Your task to perform on an android device: read, delete, or share a saved page in the chrome app Image 0: 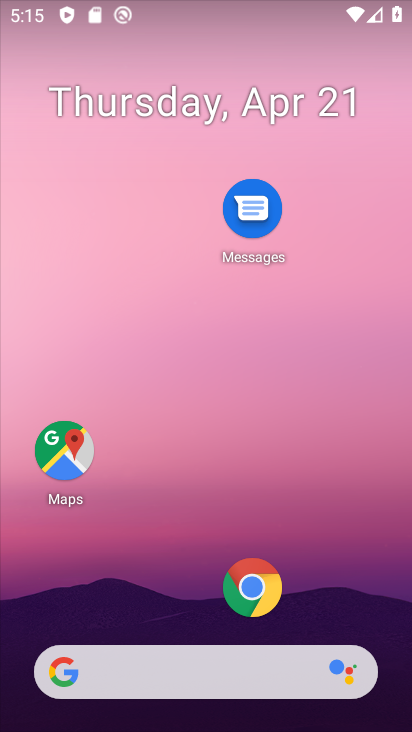
Step 0: click (253, 581)
Your task to perform on an android device: read, delete, or share a saved page in the chrome app Image 1: 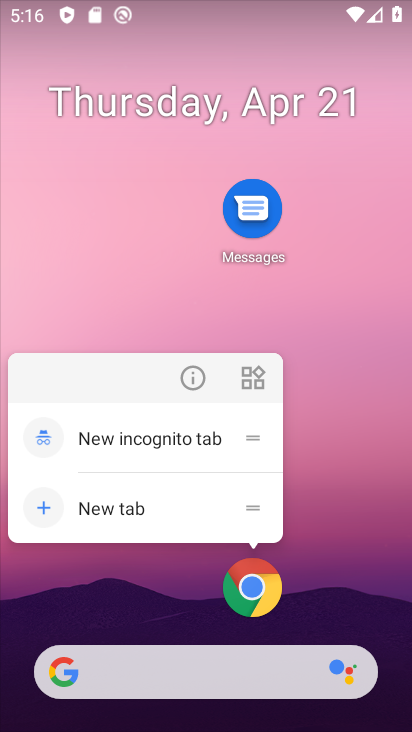
Step 1: click (260, 593)
Your task to perform on an android device: read, delete, or share a saved page in the chrome app Image 2: 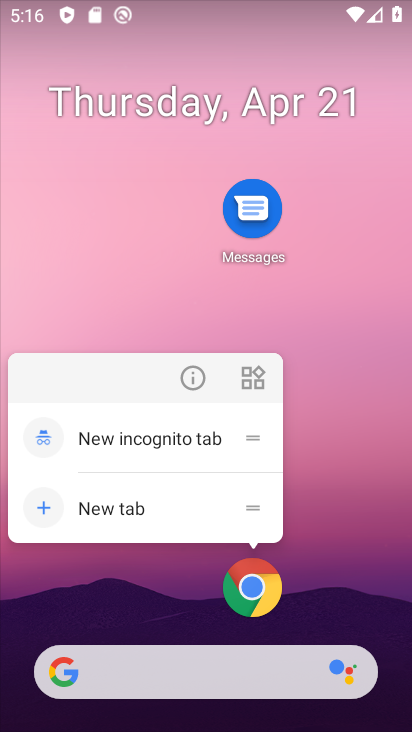
Step 2: click (330, 551)
Your task to perform on an android device: read, delete, or share a saved page in the chrome app Image 3: 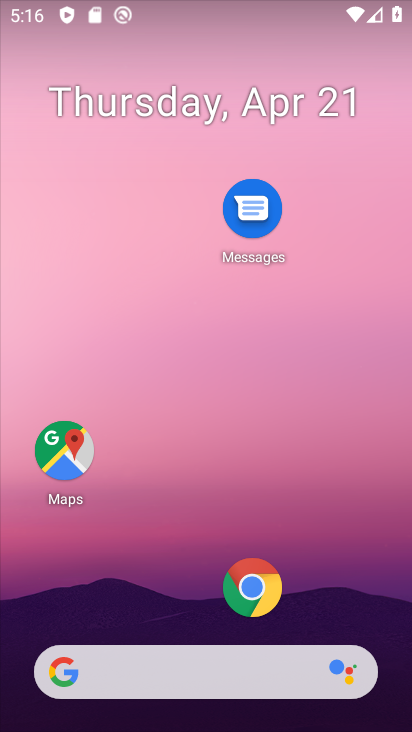
Step 3: drag from (325, 601) to (359, 127)
Your task to perform on an android device: read, delete, or share a saved page in the chrome app Image 4: 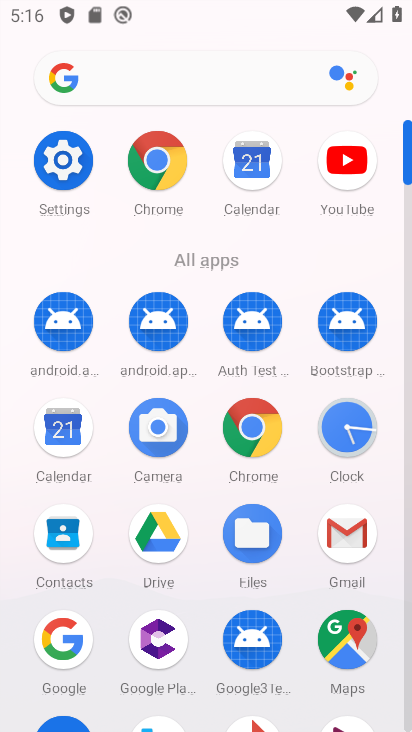
Step 4: click (154, 163)
Your task to perform on an android device: read, delete, or share a saved page in the chrome app Image 5: 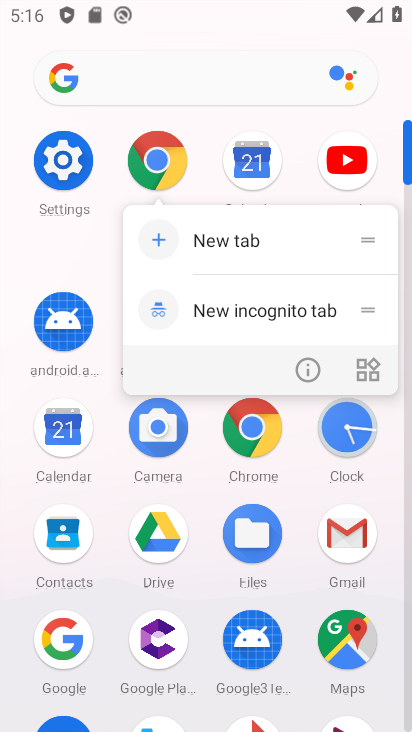
Step 5: click (254, 420)
Your task to perform on an android device: read, delete, or share a saved page in the chrome app Image 6: 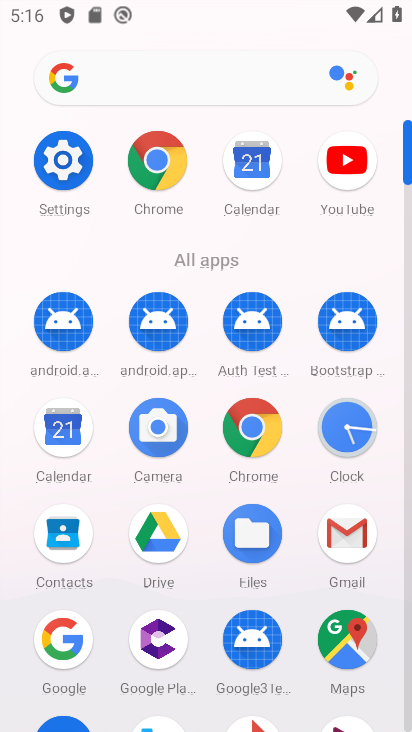
Step 6: click (250, 423)
Your task to perform on an android device: read, delete, or share a saved page in the chrome app Image 7: 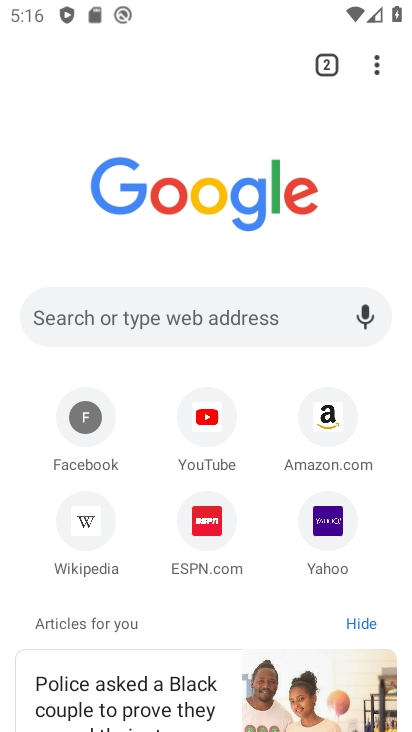
Step 7: click (373, 65)
Your task to perform on an android device: read, delete, or share a saved page in the chrome app Image 8: 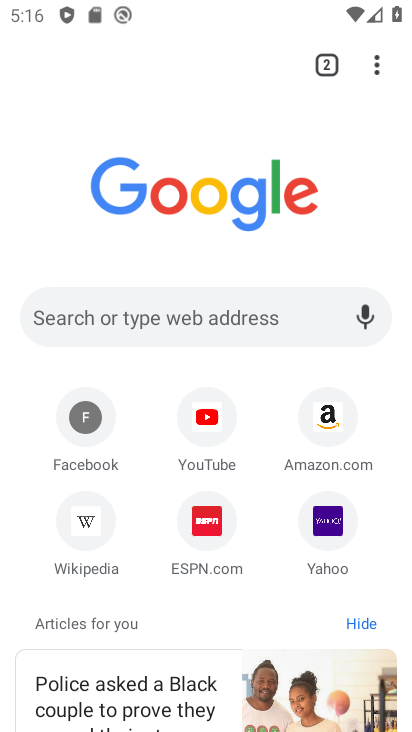
Step 8: click (373, 65)
Your task to perform on an android device: read, delete, or share a saved page in the chrome app Image 9: 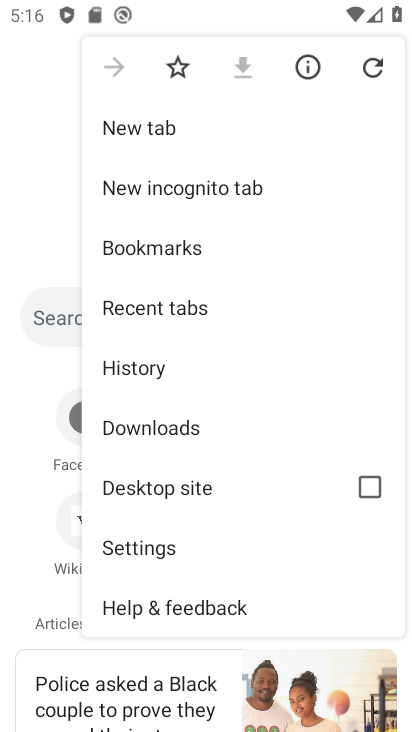
Step 9: click (206, 424)
Your task to perform on an android device: read, delete, or share a saved page in the chrome app Image 10: 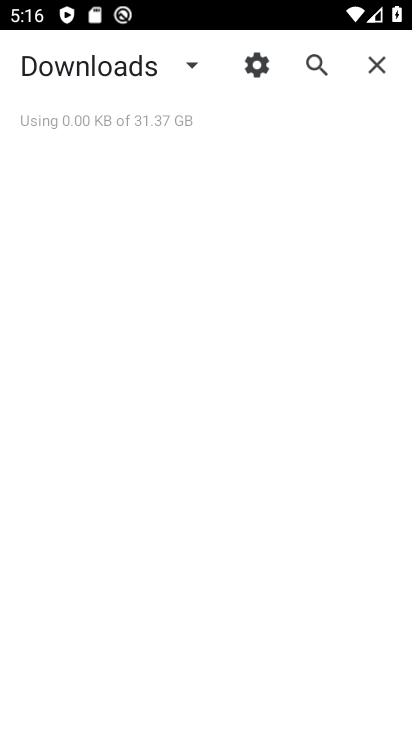
Step 10: task complete